Your task to perform on an android device: set the stopwatch Image 0: 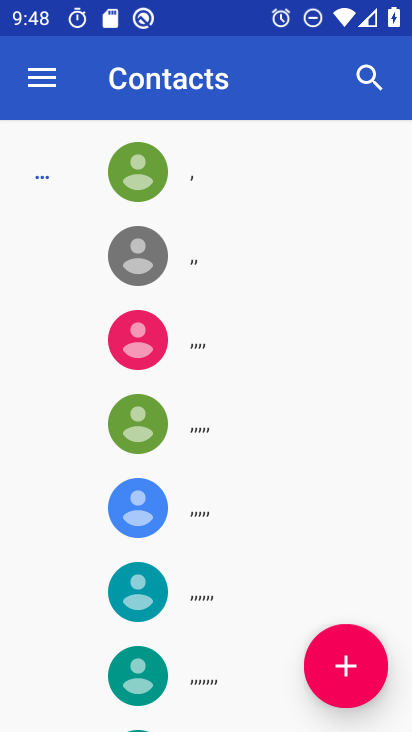
Step 0: press home button
Your task to perform on an android device: set the stopwatch Image 1: 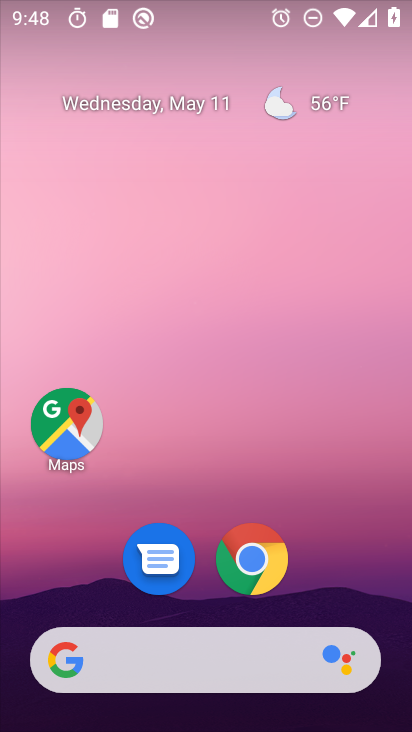
Step 1: drag from (319, 556) to (306, 179)
Your task to perform on an android device: set the stopwatch Image 2: 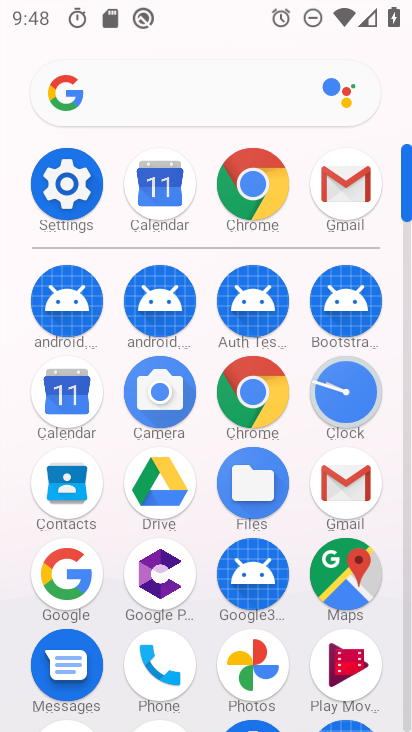
Step 2: click (344, 393)
Your task to perform on an android device: set the stopwatch Image 3: 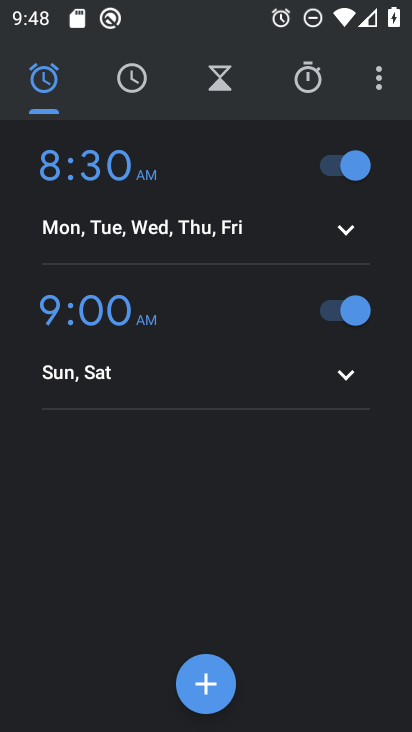
Step 3: click (136, 77)
Your task to perform on an android device: set the stopwatch Image 4: 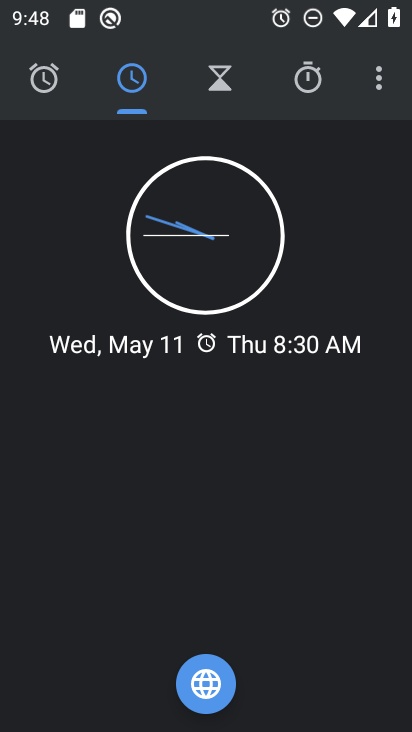
Step 4: click (214, 77)
Your task to perform on an android device: set the stopwatch Image 5: 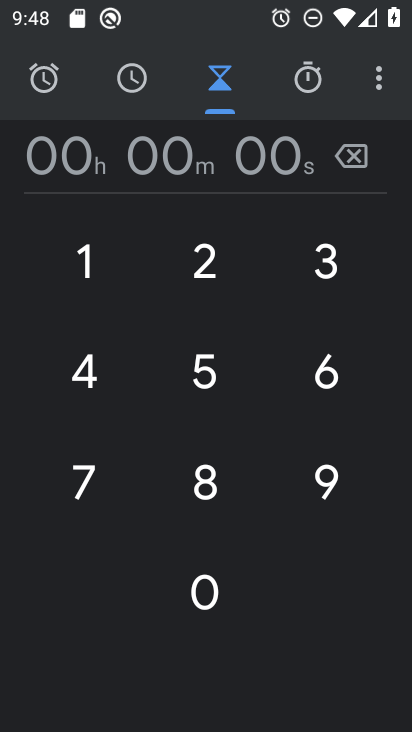
Step 5: click (372, 80)
Your task to perform on an android device: set the stopwatch Image 6: 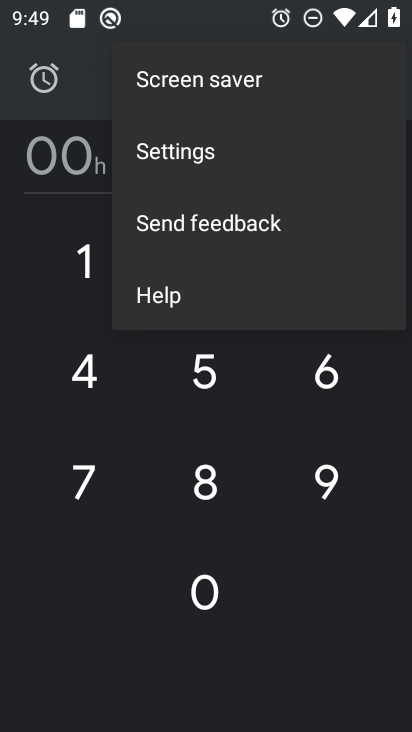
Step 6: press back button
Your task to perform on an android device: set the stopwatch Image 7: 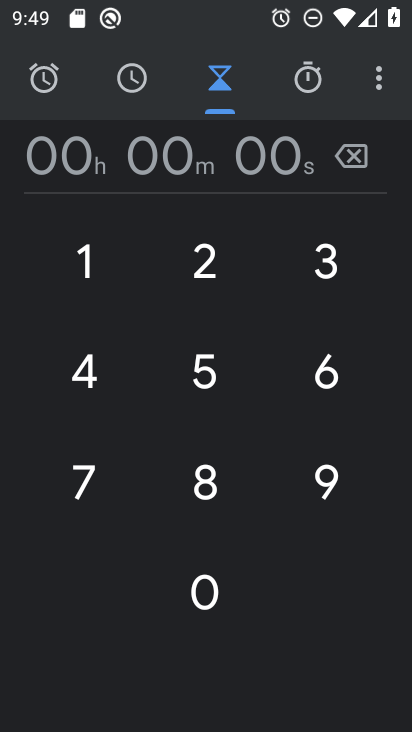
Step 7: press back button
Your task to perform on an android device: set the stopwatch Image 8: 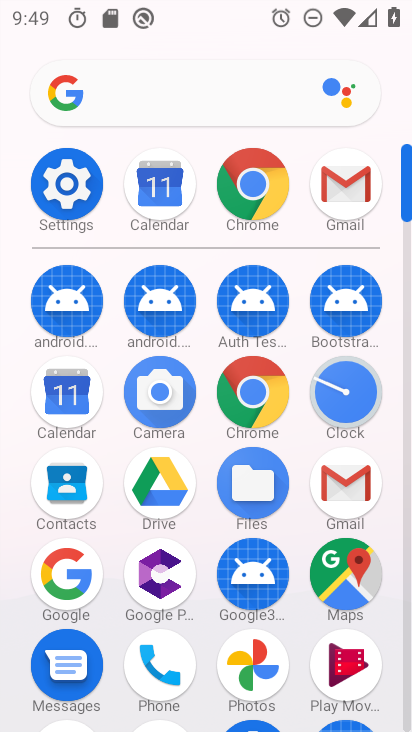
Step 8: click (340, 386)
Your task to perform on an android device: set the stopwatch Image 9: 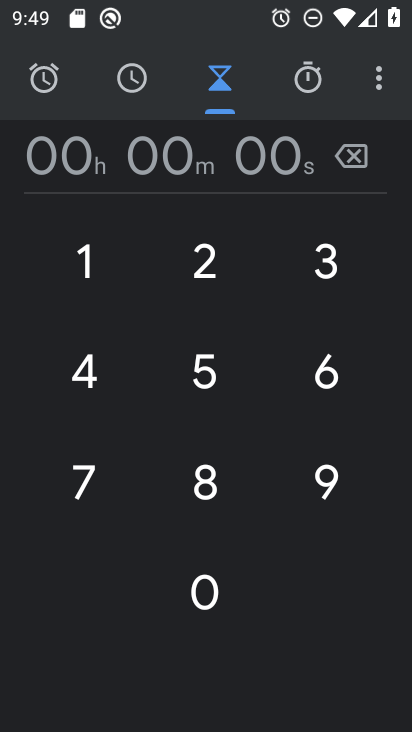
Step 9: click (312, 83)
Your task to perform on an android device: set the stopwatch Image 10: 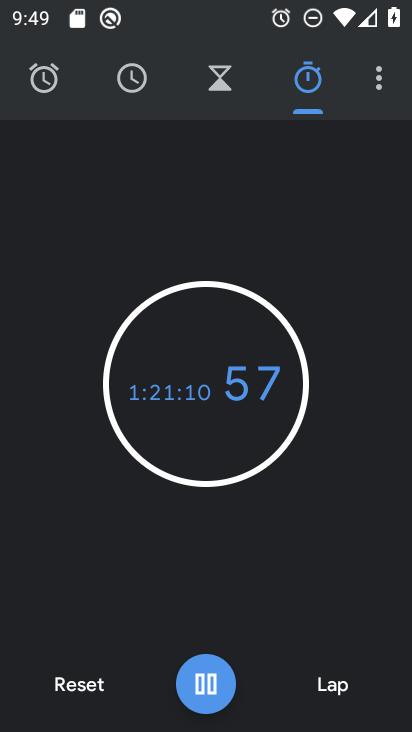
Step 10: click (194, 682)
Your task to perform on an android device: set the stopwatch Image 11: 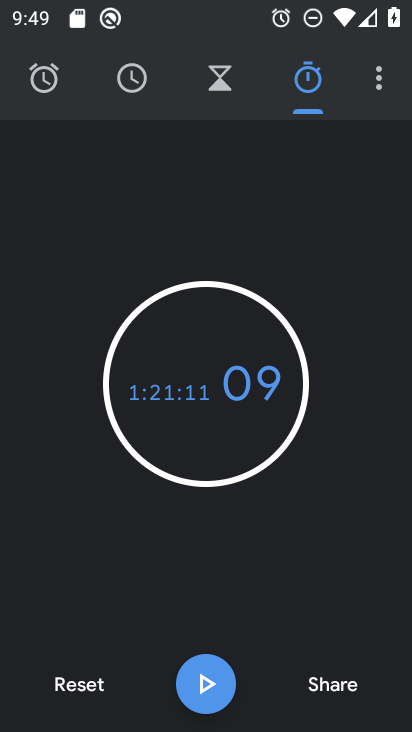
Step 11: click (198, 685)
Your task to perform on an android device: set the stopwatch Image 12: 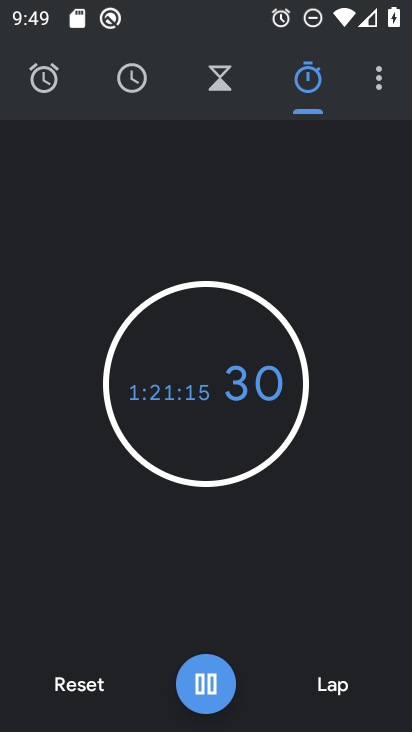
Step 12: task complete